Your task to perform on an android device: Search for pizza restaurants on Maps Image 0: 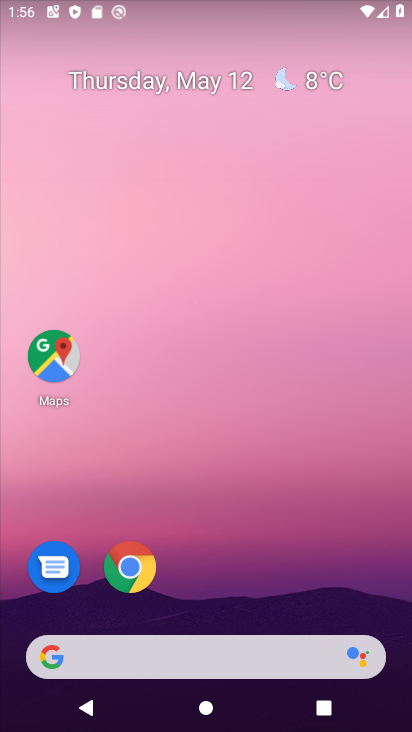
Step 0: drag from (219, 71) to (218, 134)
Your task to perform on an android device: Search for pizza restaurants on Maps Image 1: 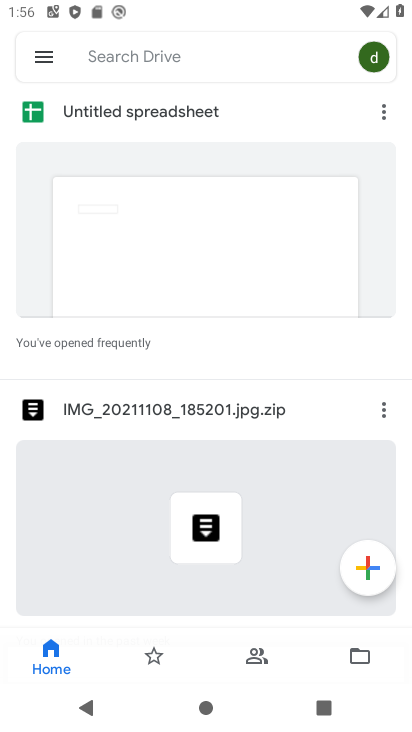
Step 1: press home button
Your task to perform on an android device: Search for pizza restaurants on Maps Image 2: 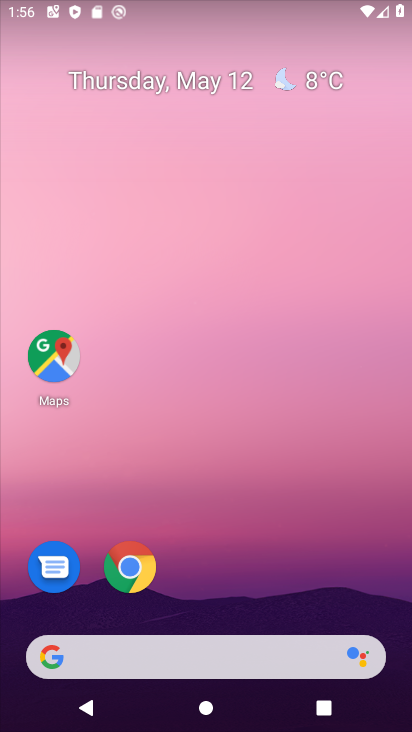
Step 2: click (54, 357)
Your task to perform on an android device: Search for pizza restaurants on Maps Image 3: 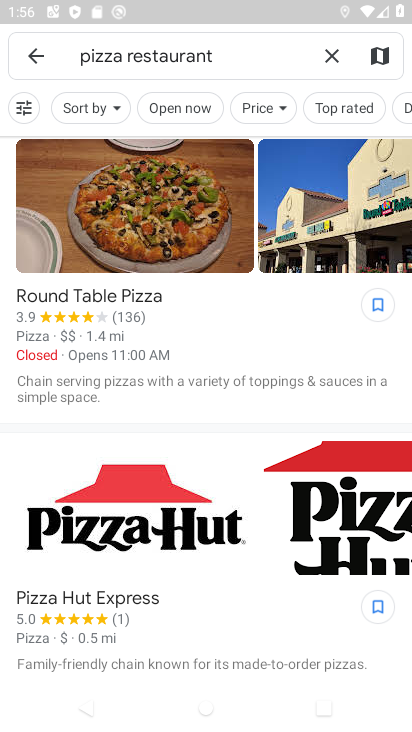
Step 3: task complete